Your task to perform on an android device: Search for pizza restaurants on Maps Image 0: 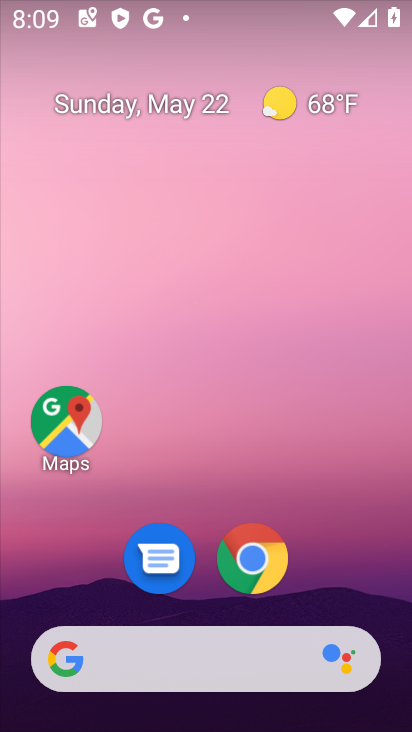
Step 0: click (69, 422)
Your task to perform on an android device: Search for pizza restaurants on Maps Image 1: 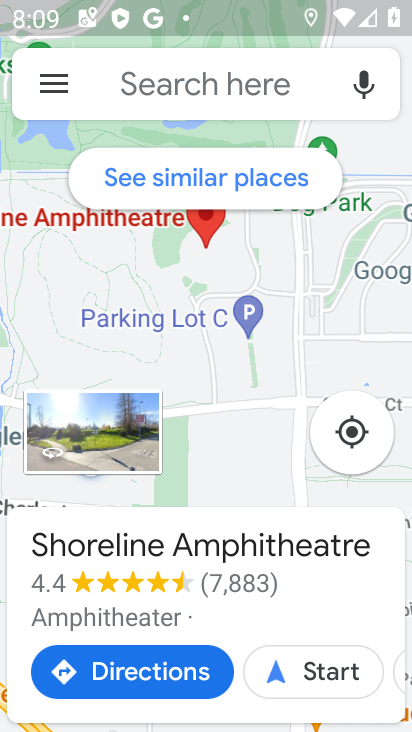
Step 1: click (171, 81)
Your task to perform on an android device: Search for pizza restaurants on Maps Image 2: 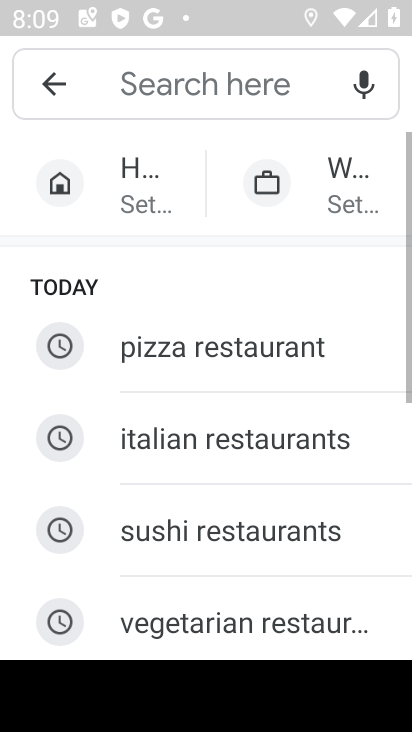
Step 2: click (218, 360)
Your task to perform on an android device: Search for pizza restaurants on Maps Image 3: 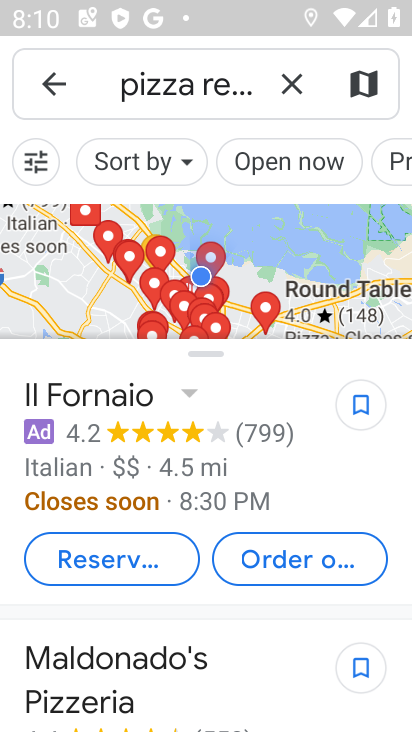
Step 3: task complete